Your task to perform on an android device: toggle notifications settings in the gmail app Image 0: 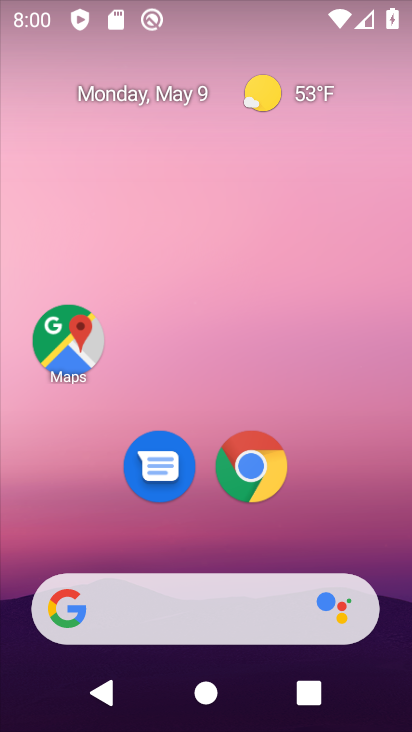
Step 0: drag from (310, 510) to (228, 14)
Your task to perform on an android device: toggle notifications settings in the gmail app Image 1: 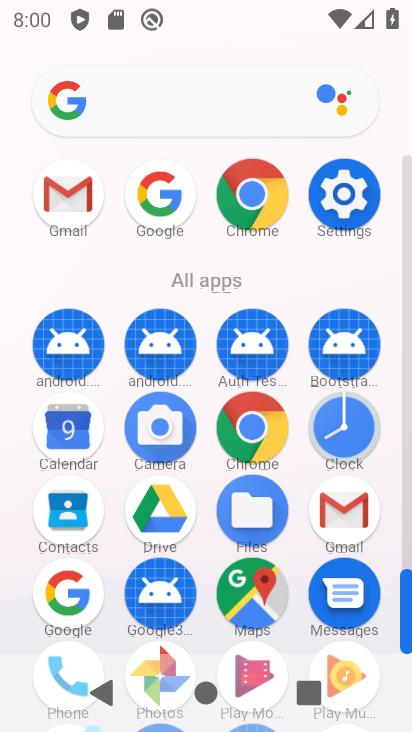
Step 1: click (65, 198)
Your task to perform on an android device: toggle notifications settings in the gmail app Image 2: 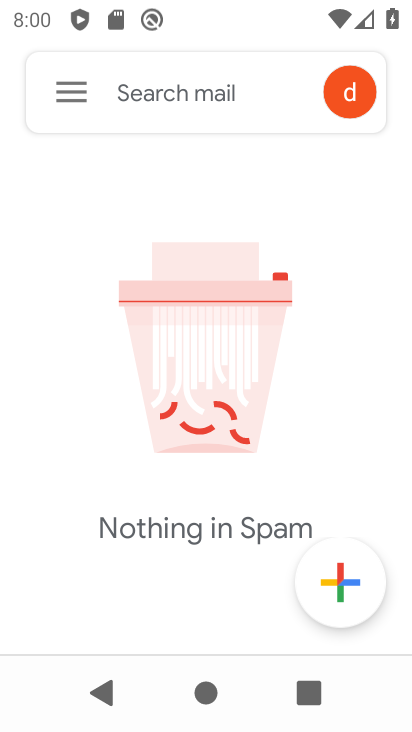
Step 2: click (73, 95)
Your task to perform on an android device: toggle notifications settings in the gmail app Image 3: 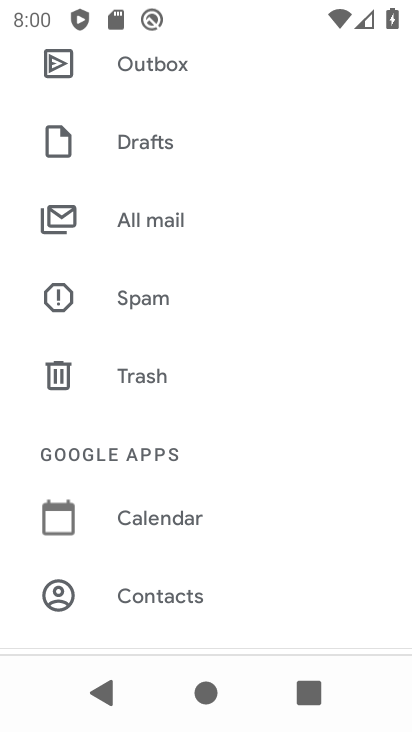
Step 3: drag from (167, 532) to (197, 392)
Your task to perform on an android device: toggle notifications settings in the gmail app Image 4: 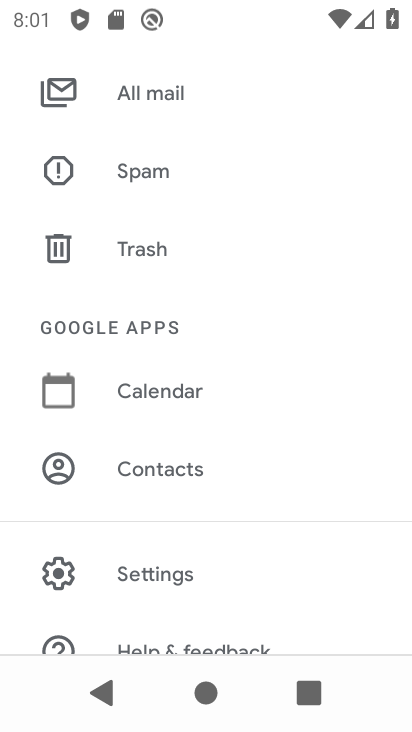
Step 4: click (151, 574)
Your task to perform on an android device: toggle notifications settings in the gmail app Image 5: 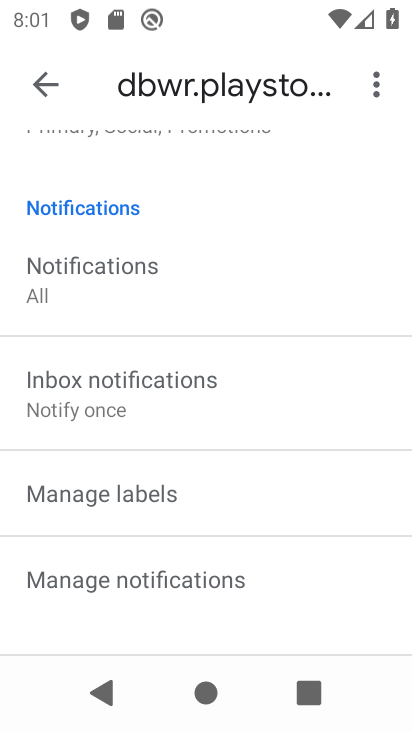
Step 5: click (151, 580)
Your task to perform on an android device: toggle notifications settings in the gmail app Image 6: 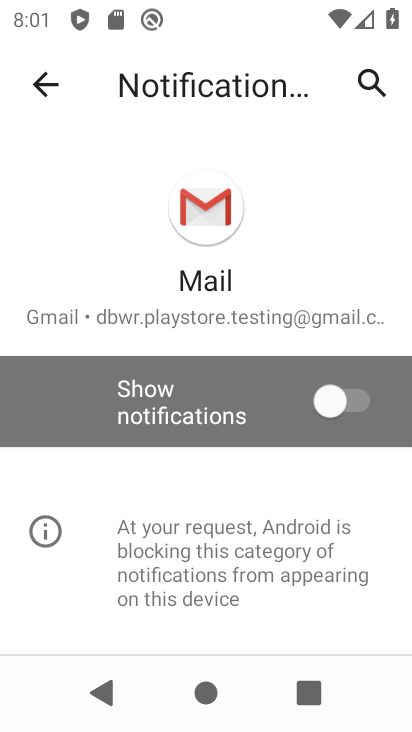
Step 6: click (347, 393)
Your task to perform on an android device: toggle notifications settings in the gmail app Image 7: 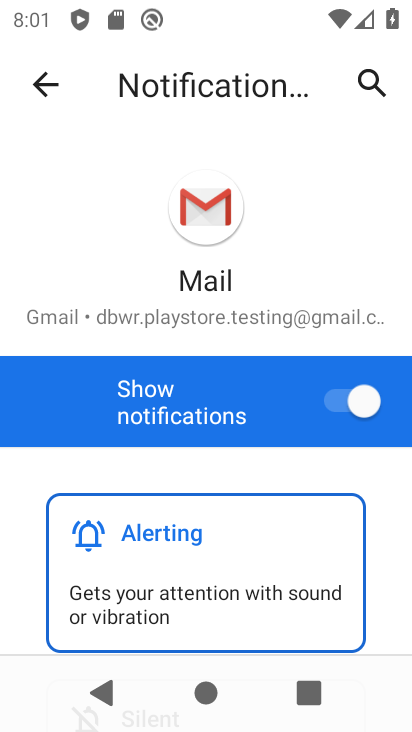
Step 7: task complete